Your task to perform on an android device: Open Chrome and go to settings Image 0: 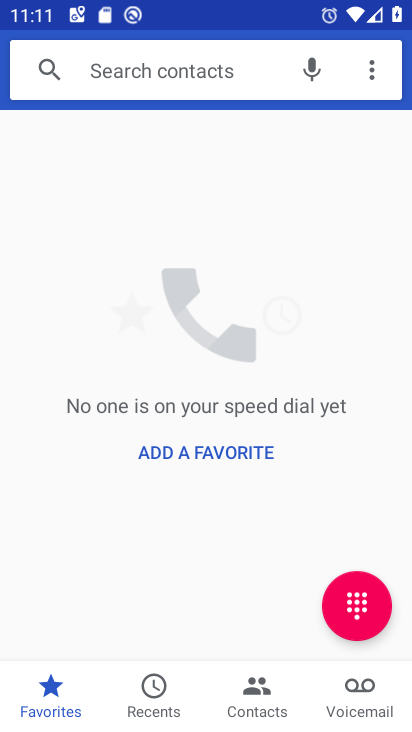
Step 0: press home button
Your task to perform on an android device: Open Chrome and go to settings Image 1: 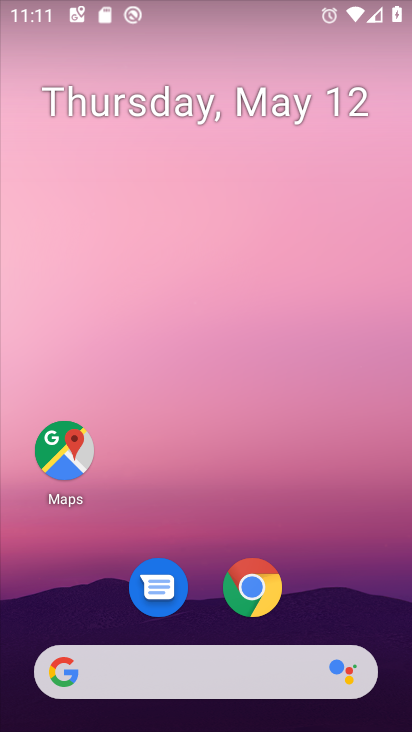
Step 1: drag from (388, 641) to (267, 124)
Your task to perform on an android device: Open Chrome and go to settings Image 2: 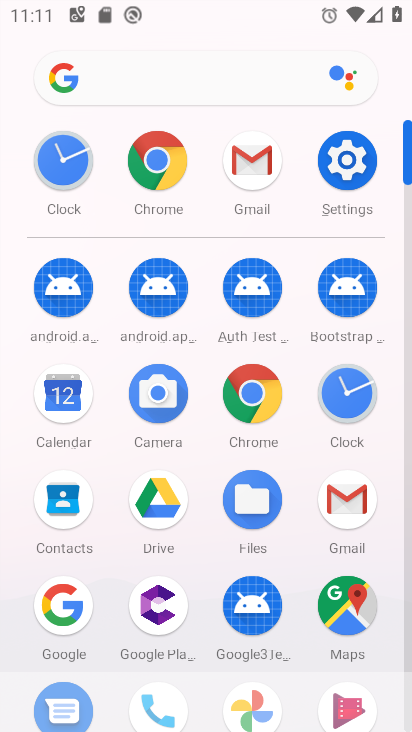
Step 2: click (162, 179)
Your task to perform on an android device: Open Chrome and go to settings Image 3: 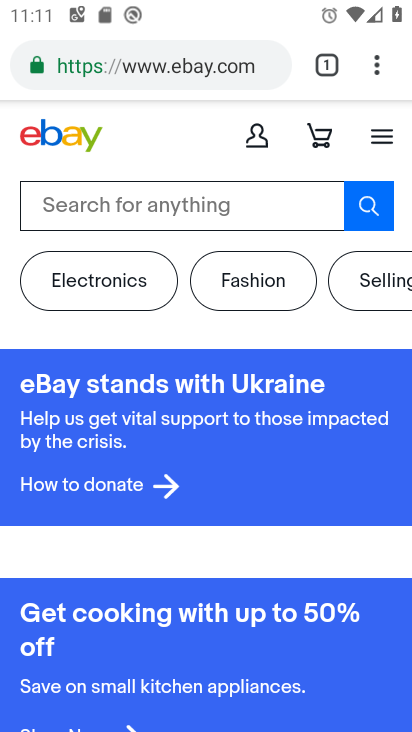
Step 3: press back button
Your task to perform on an android device: Open Chrome and go to settings Image 4: 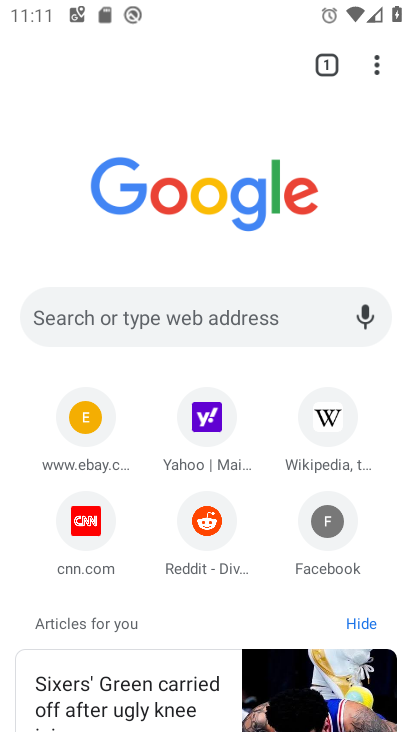
Step 4: click (377, 57)
Your task to perform on an android device: Open Chrome and go to settings Image 5: 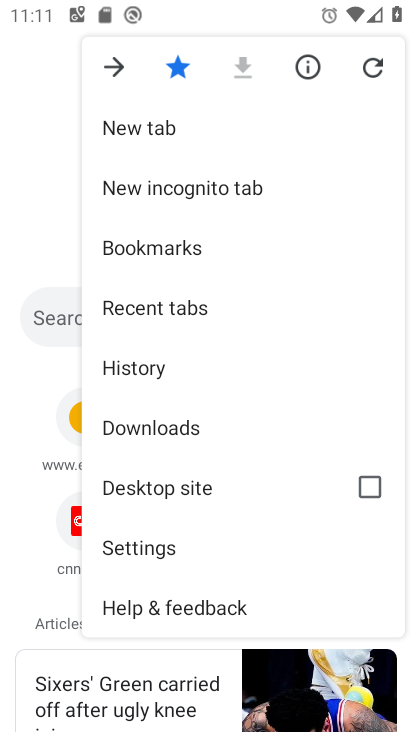
Step 5: click (179, 542)
Your task to perform on an android device: Open Chrome and go to settings Image 6: 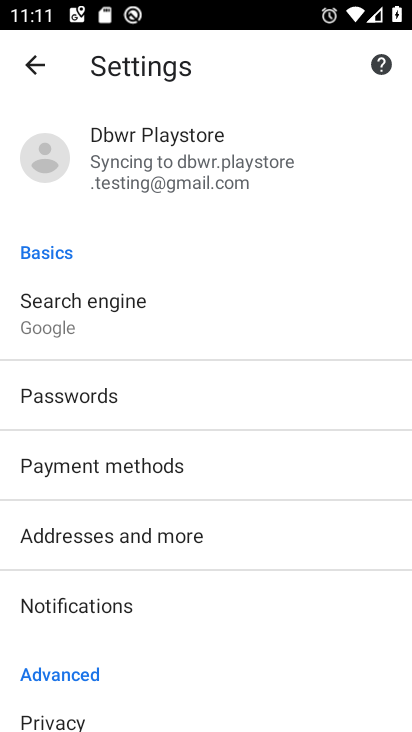
Step 6: task complete